Your task to perform on an android device: turn on translation in the chrome app Image 0: 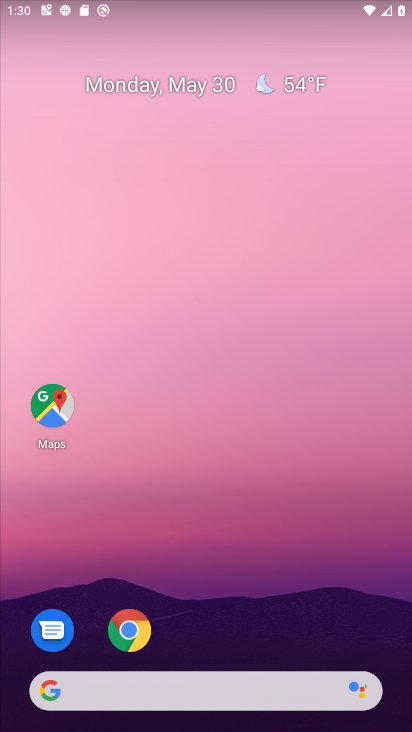
Step 0: press home button
Your task to perform on an android device: turn on translation in the chrome app Image 1: 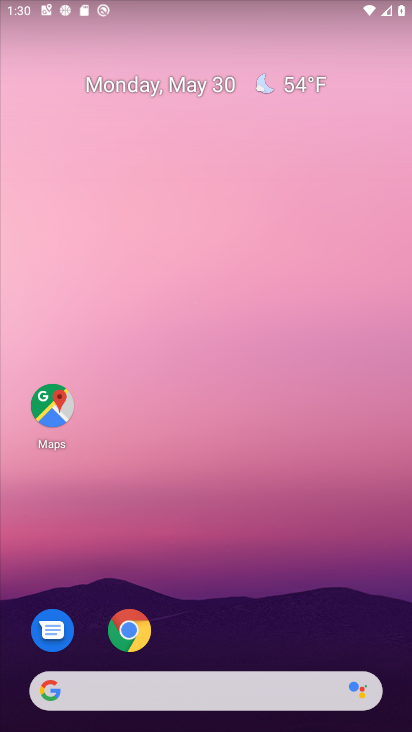
Step 1: click (123, 626)
Your task to perform on an android device: turn on translation in the chrome app Image 2: 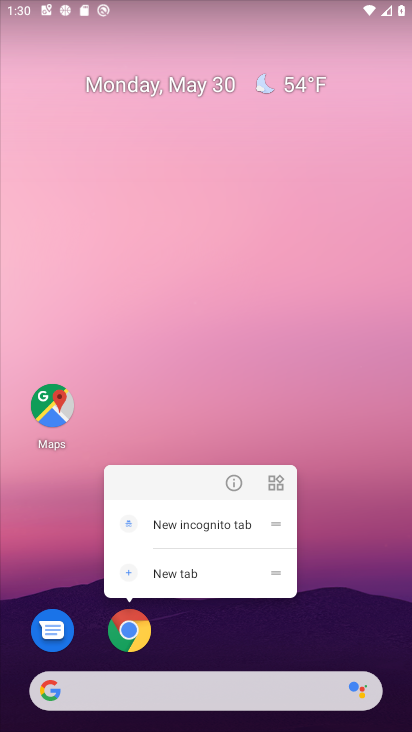
Step 2: click (132, 625)
Your task to perform on an android device: turn on translation in the chrome app Image 3: 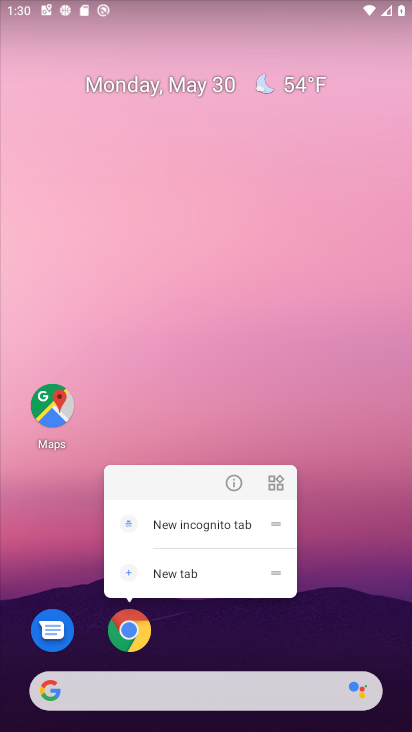
Step 3: click (130, 630)
Your task to perform on an android device: turn on translation in the chrome app Image 4: 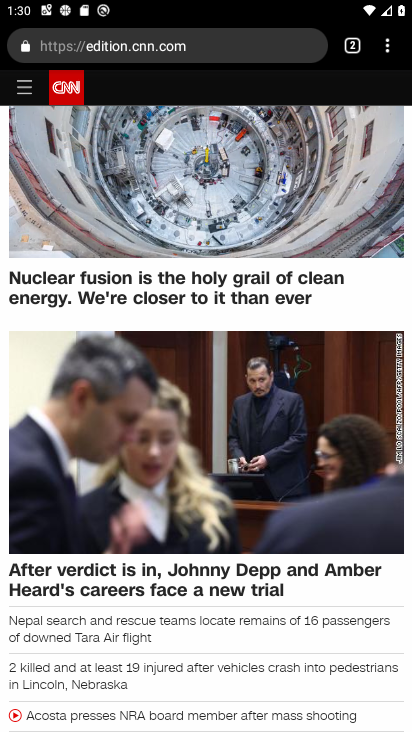
Step 4: drag from (386, 46) to (271, 504)
Your task to perform on an android device: turn on translation in the chrome app Image 5: 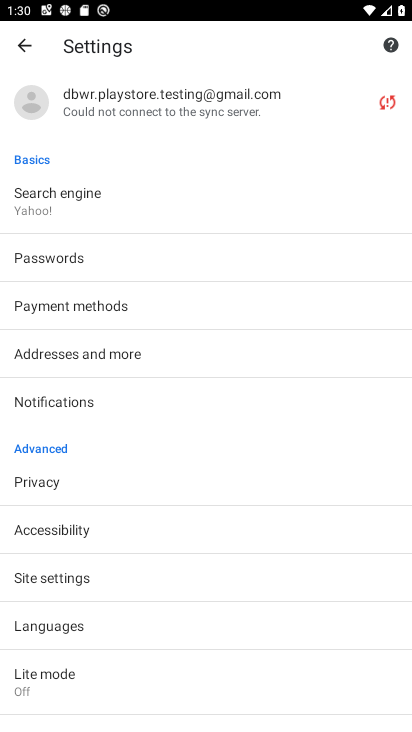
Step 5: click (70, 625)
Your task to perform on an android device: turn on translation in the chrome app Image 6: 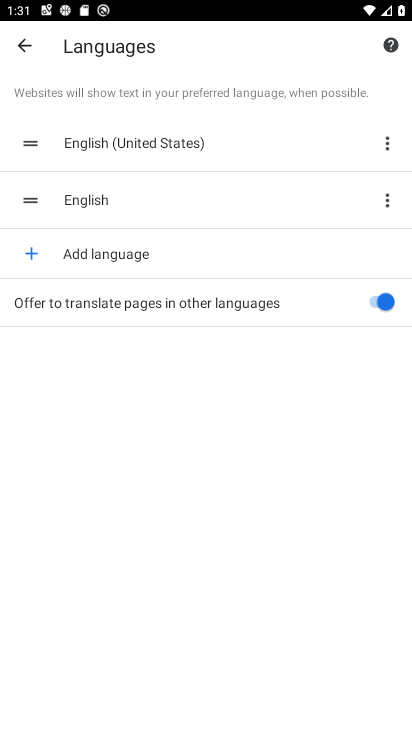
Step 6: task complete